Your task to perform on an android device: turn off notifications in google photos Image 0: 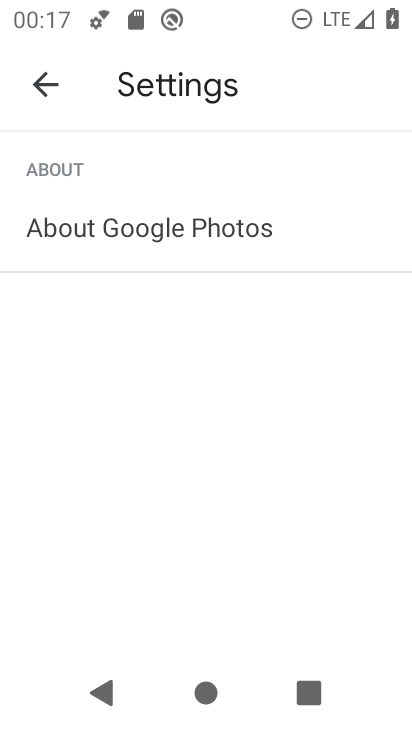
Step 0: press back button
Your task to perform on an android device: turn off notifications in google photos Image 1: 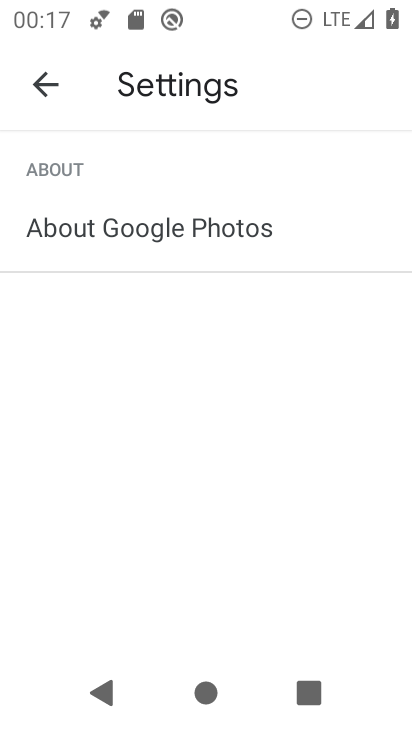
Step 1: task complete